Your task to perform on an android device: Go to Google Image 0: 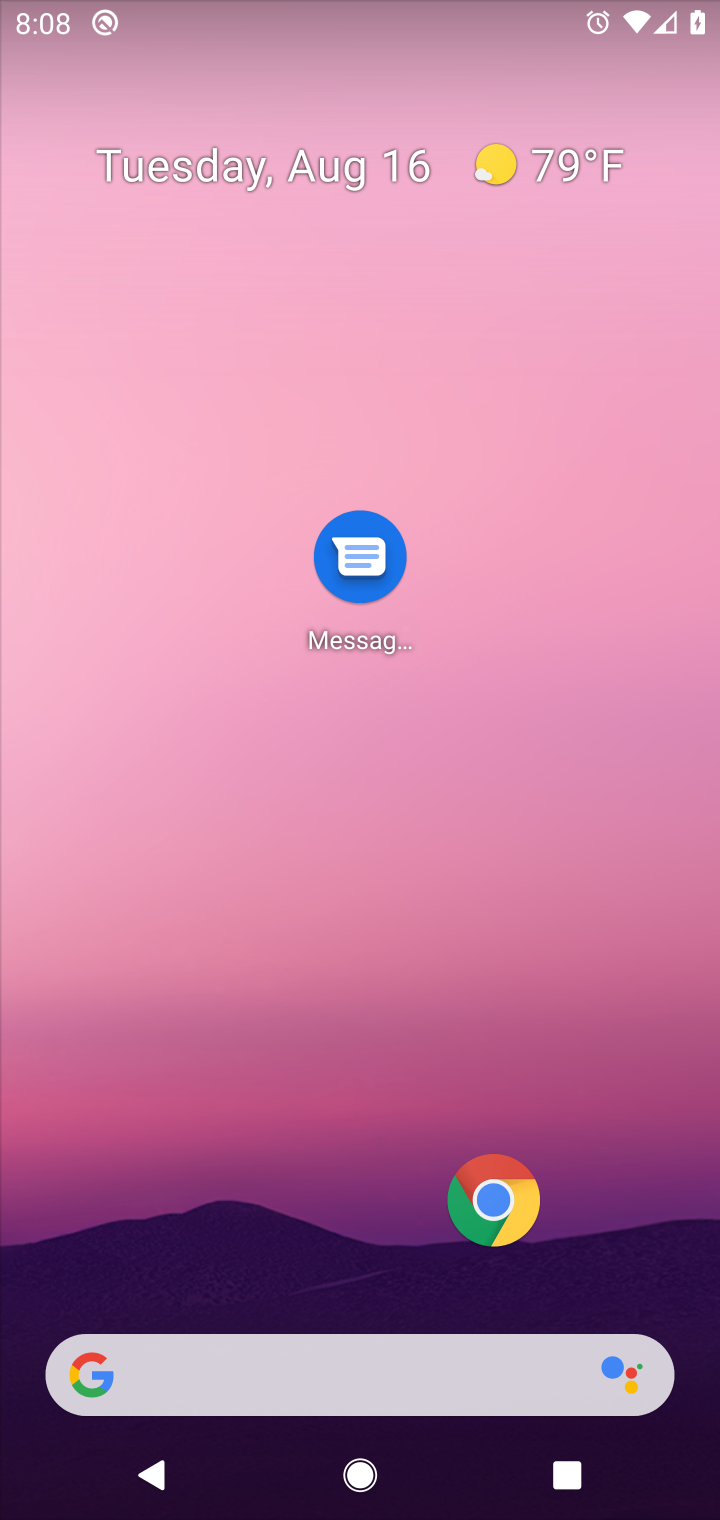
Step 0: click (151, 1379)
Your task to perform on an android device: Go to Google Image 1: 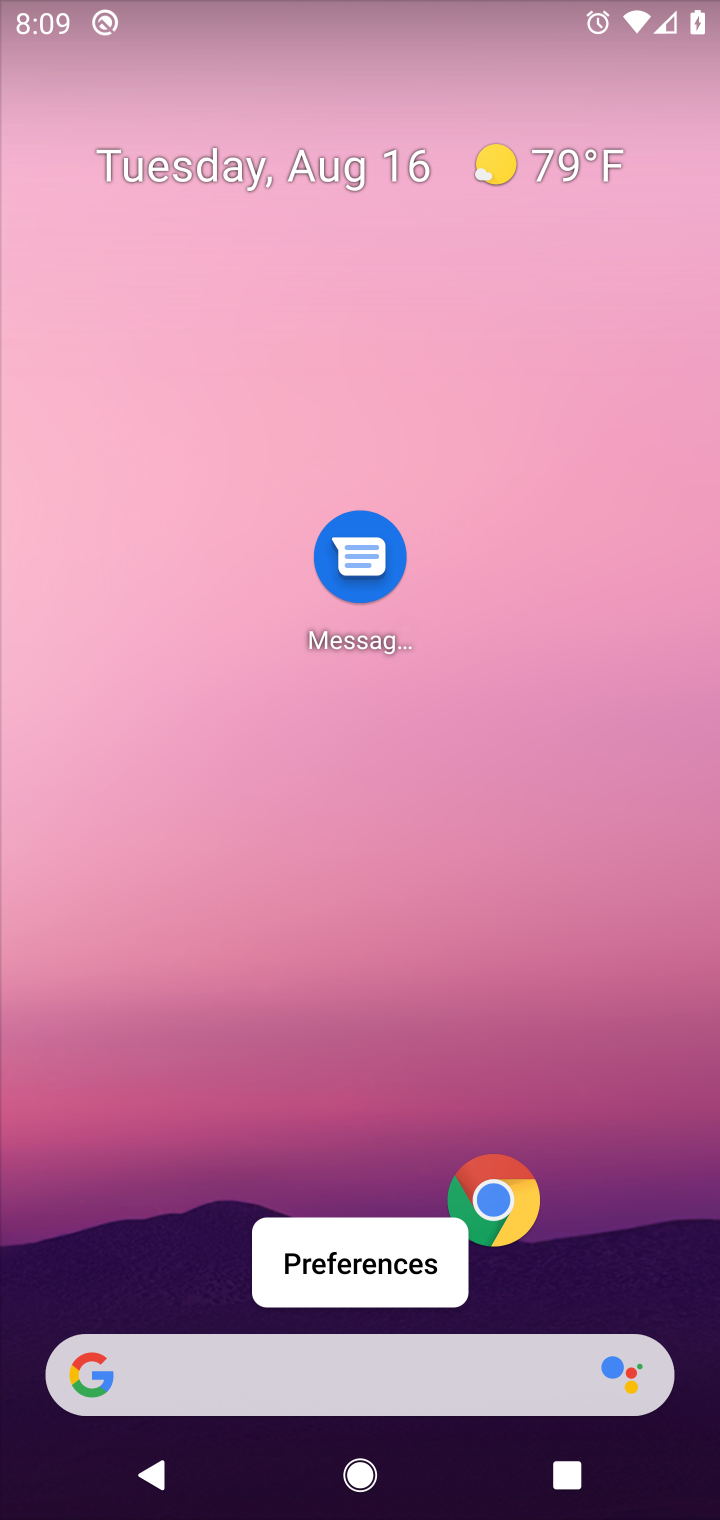
Step 1: click (150, 1376)
Your task to perform on an android device: Go to Google Image 2: 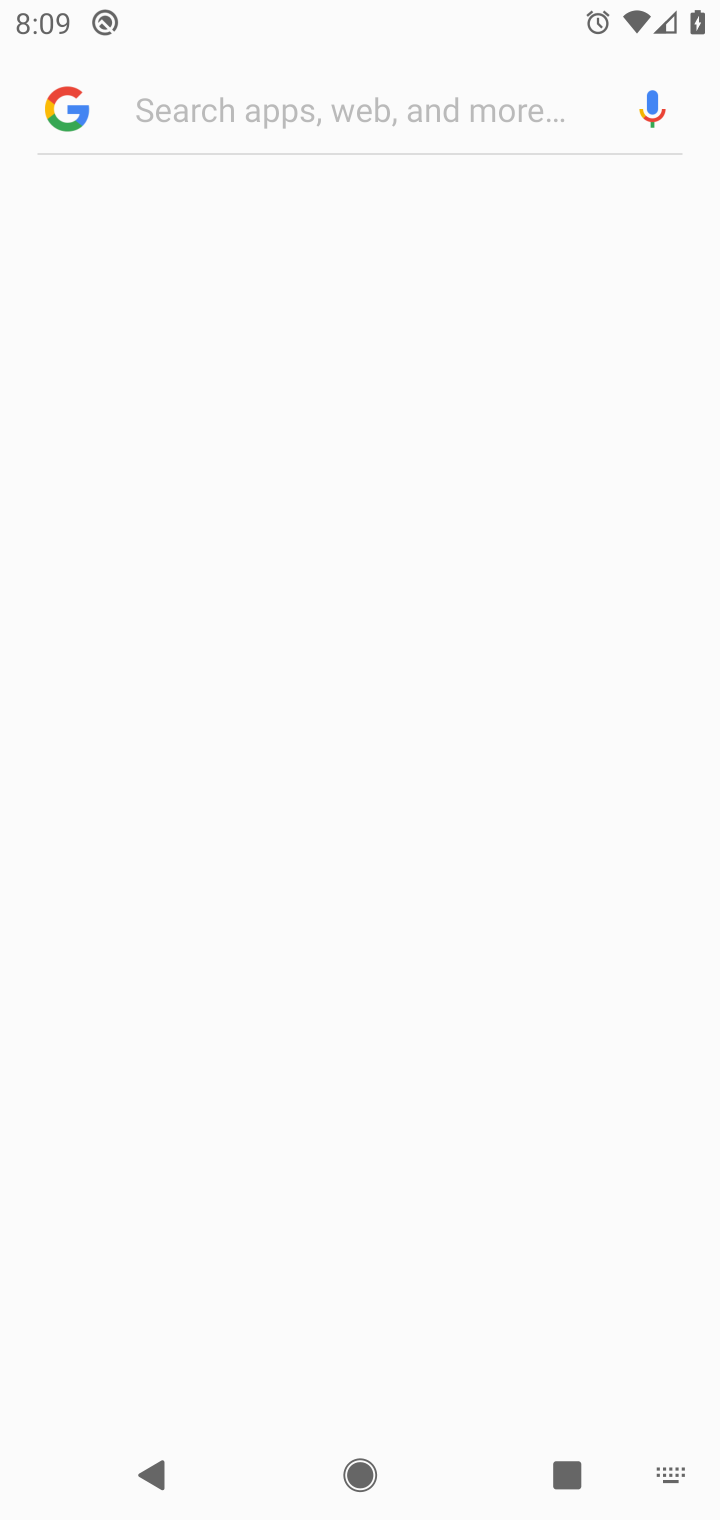
Step 2: task complete